Your task to perform on an android device: open chrome privacy settings Image 0: 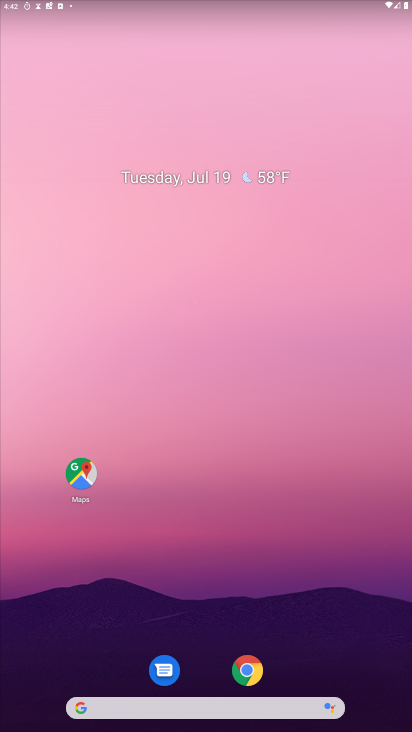
Step 0: drag from (230, 695) to (331, 0)
Your task to perform on an android device: open chrome privacy settings Image 1: 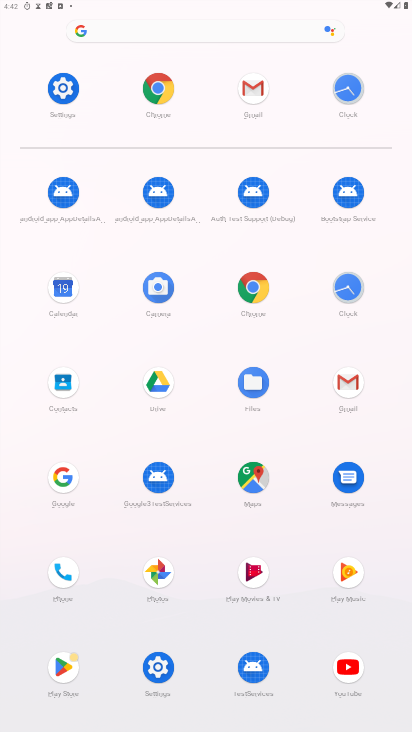
Step 1: click (256, 287)
Your task to perform on an android device: open chrome privacy settings Image 2: 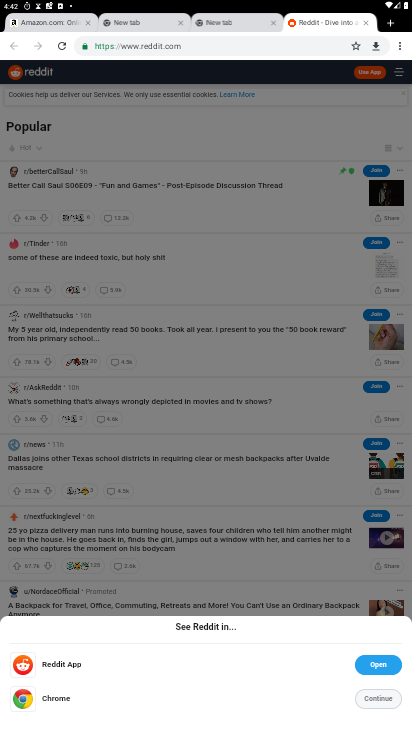
Step 2: drag from (400, 44) to (311, 307)
Your task to perform on an android device: open chrome privacy settings Image 3: 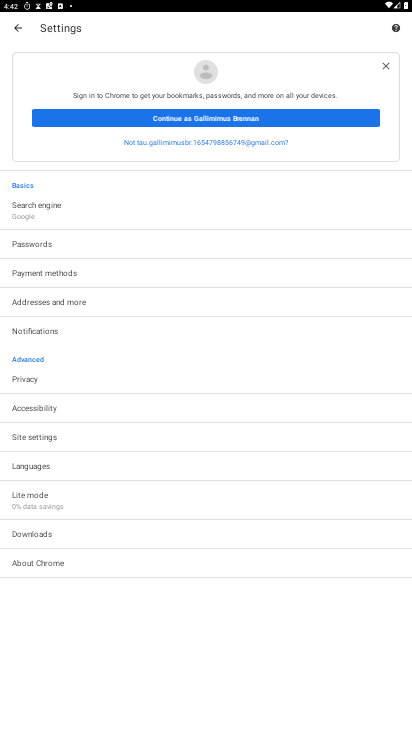
Step 3: click (57, 384)
Your task to perform on an android device: open chrome privacy settings Image 4: 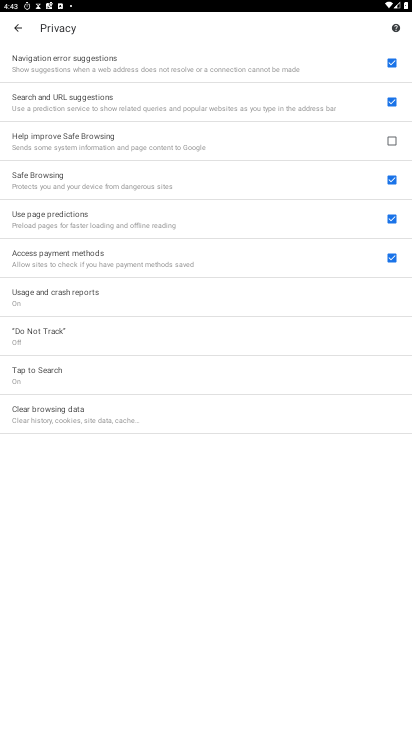
Step 4: task complete